Your task to perform on an android device: Open Google Chrome and open the bookmarks view Image 0: 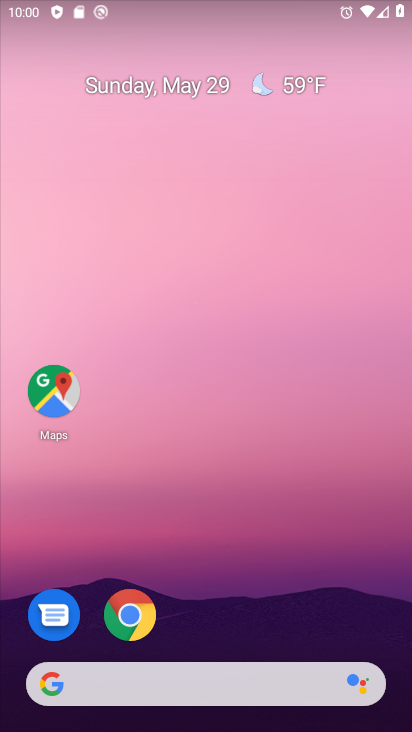
Step 0: click (135, 614)
Your task to perform on an android device: Open Google Chrome and open the bookmarks view Image 1: 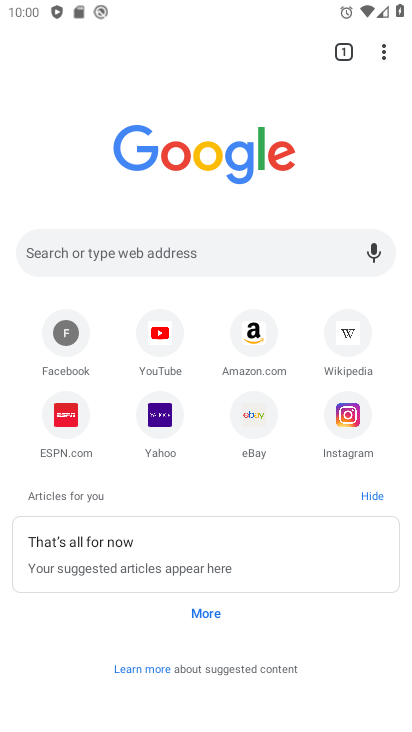
Step 1: click (376, 59)
Your task to perform on an android device: Open Google Chrome and open the bookmarks view Image 2: 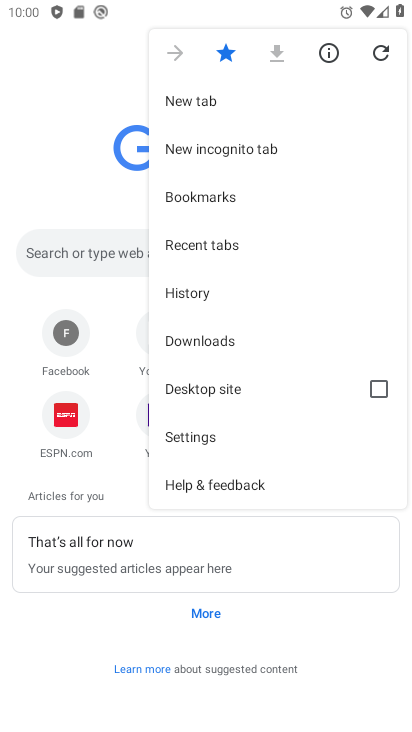
Step 2: click (212, 203)
Your task to perform on an android device: Open Google Chrome and open the bookmarks view Image 3: 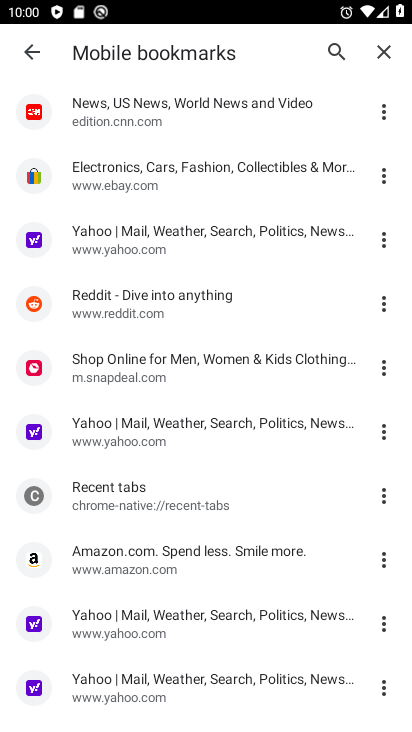
Step 3: click (139, 236)
Your task to perform on an android device: Open Google Chrome and open the bookmarks view Image 4: 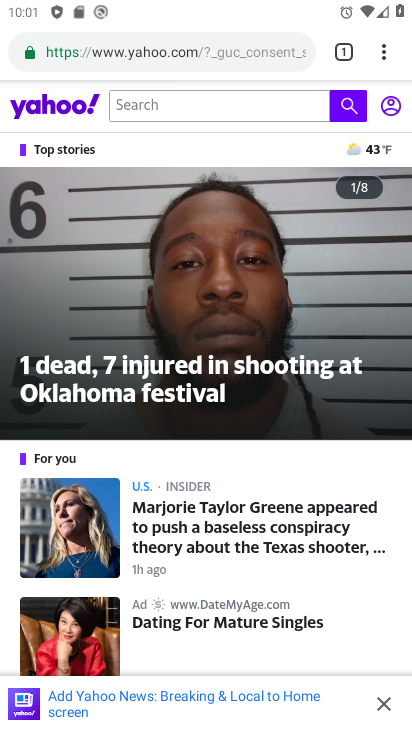
Step 4: task complete